Your task to perform on an android device: toggle wifi Image 0: 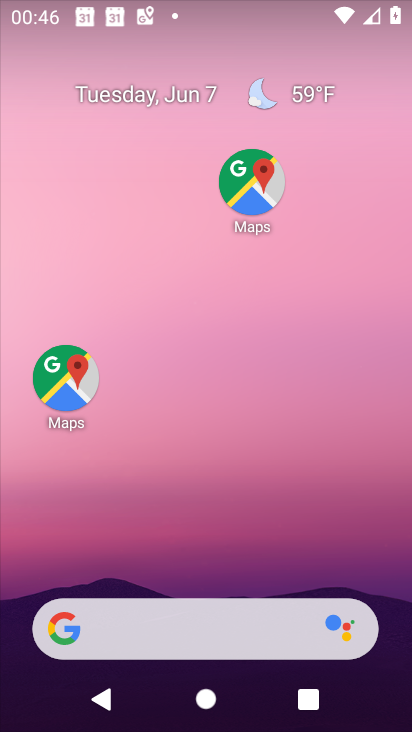
Step 0: drag from (203, 566) to (170, 91)
Your task to perform on an android device: toggle wifi Image 1: 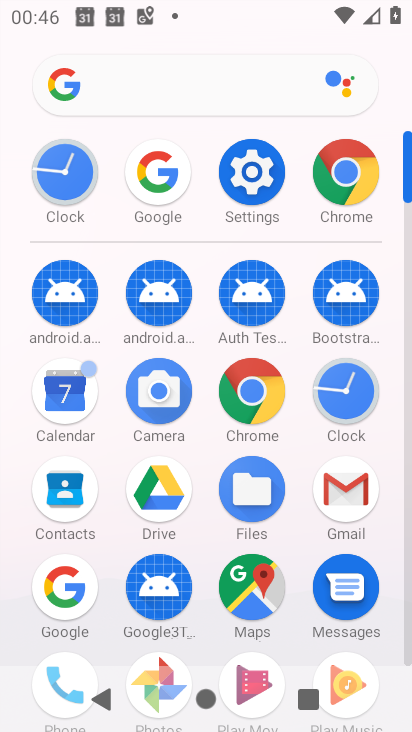
Step 1: click (245, 176)
Your task to perform on an android device: toggle wifi Image 2: 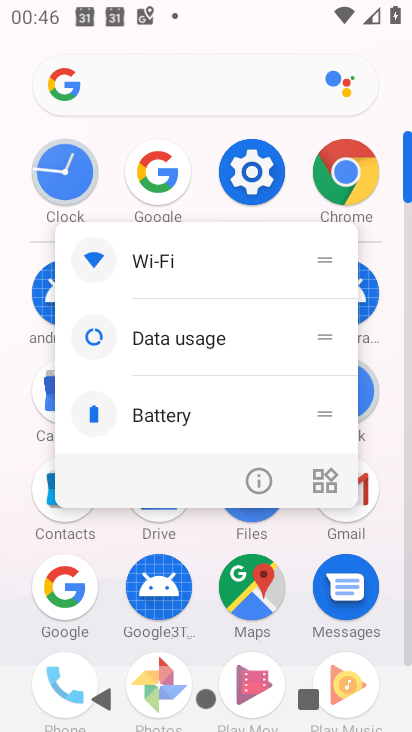
Step 2: click (243, 179)
Your task to perform on an android device: toggle wifi Image 3: 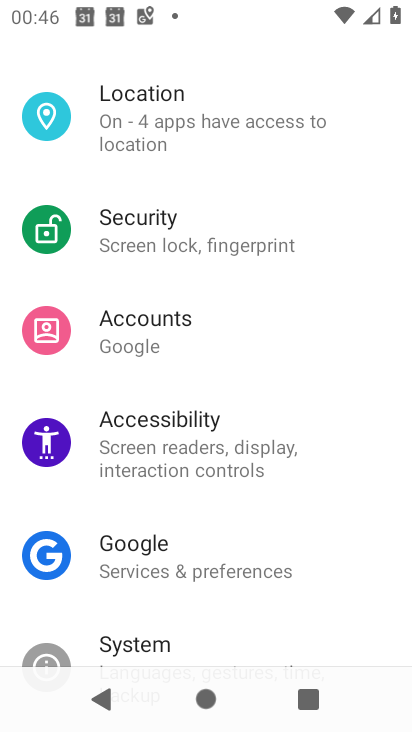
Step 3: drag from (236, 336) to (263, 559)
Your task to perform on an android device: toggle wifi Image 4: 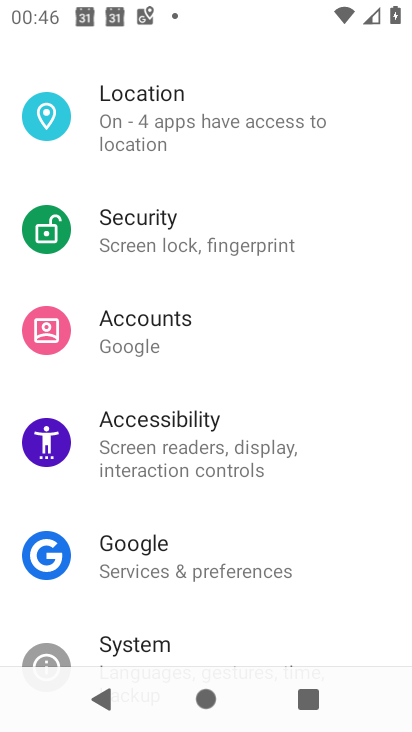
Step 4: drag from (188, 132) to (238, 557)
Your task to perform on an android device: toggle wifi Image 5: 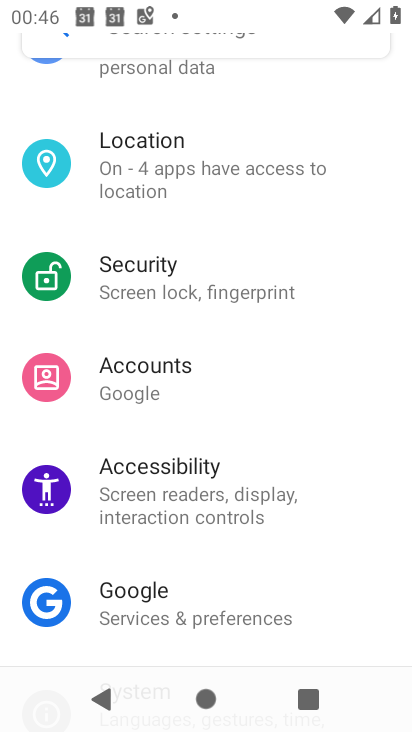
Step 5: drag from (170, 109) to (279, 513)
Your task to perform on an android device: toggle wifi Image 6: 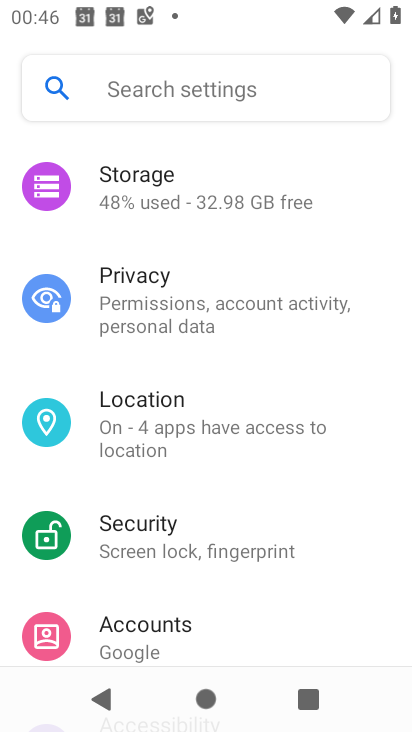
Step 6: drag from (186, 394) to (251, 617)
Your task to perform on an android device: toggle wifi Image 7: 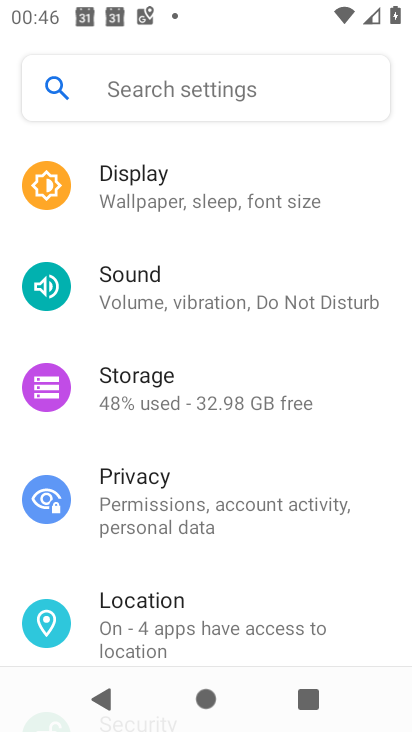
Step 7: drag from (155, 174) to (245, 583)
Your task to perform on an android device: toggle wifi Image 8: 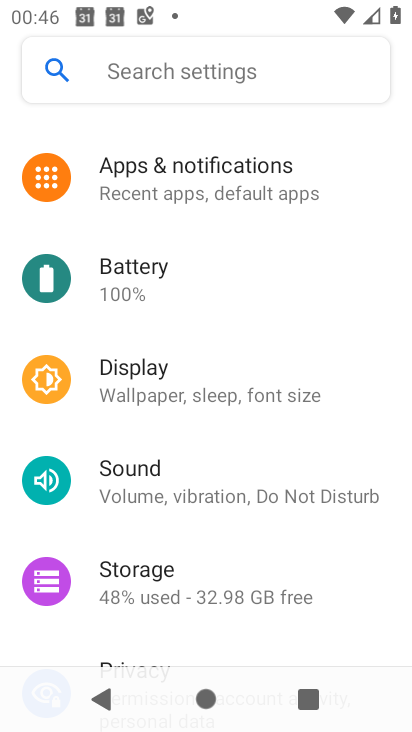
Step 8: drag from (142, 136) to (257, 516)
Your task to perform on an android device: toggle wifi Image 9: 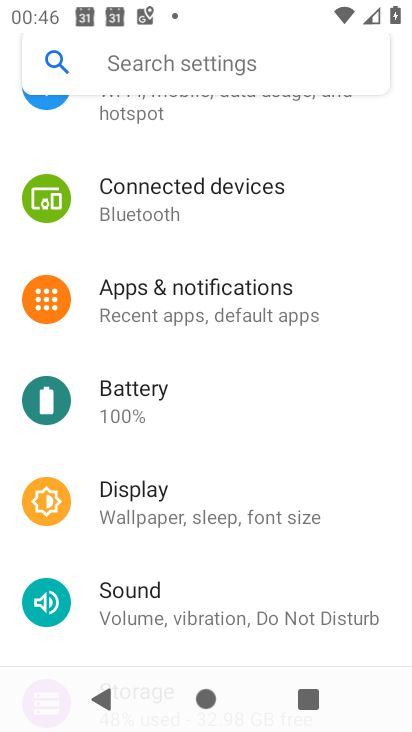
Step 9: drag from (154, 216) to (255, 625)
Your task to perform on an android device: toggle wifi Image 10: 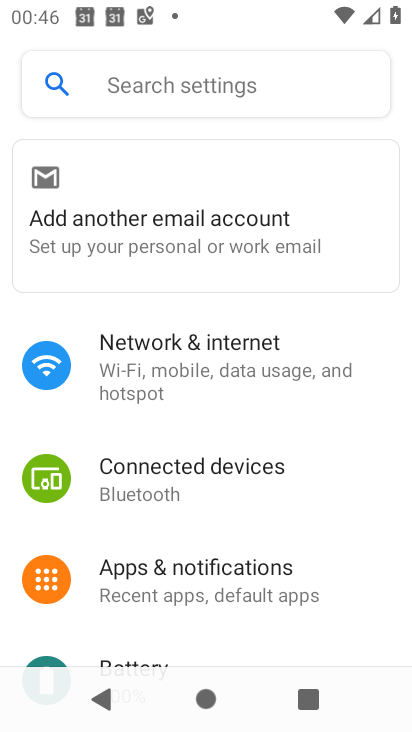
Step 10: click (193, 340)
Your task to perform on an android device: toggle wifi Image 11: 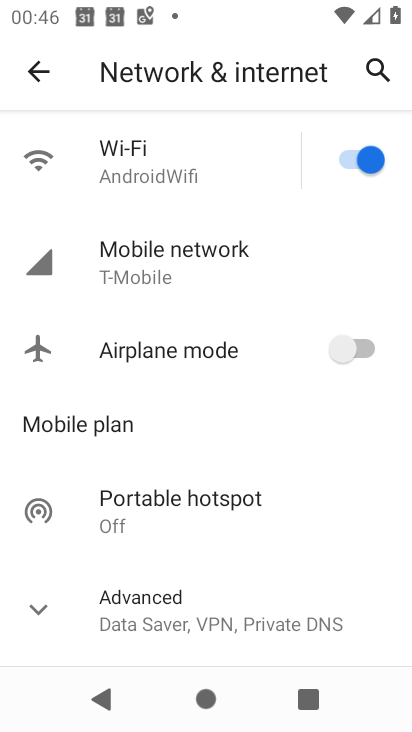
Step 11: click (373, 169)
Your task to perform on an android device: toggle wifi Image 12: 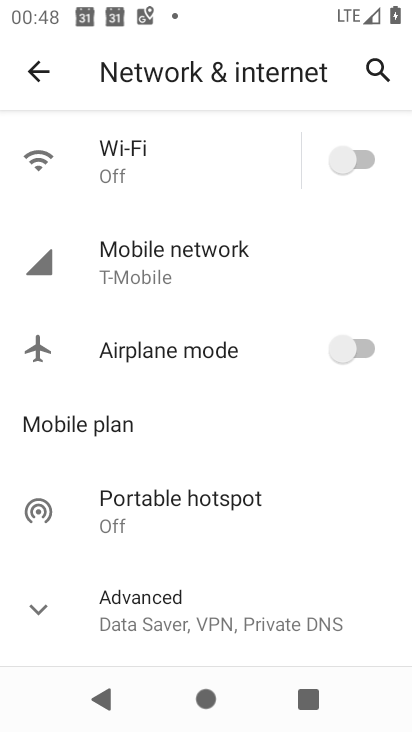
Step 12: task complete